Your task to perform on an android device: Search for Italian restaurants on Maps Image 0: 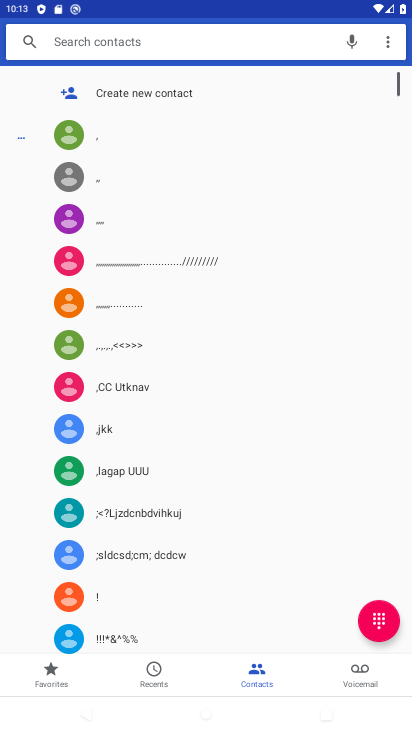
Step 0: press home button
Your task to perform on an android device: Search for Italian restaurants on Maps Image 1: 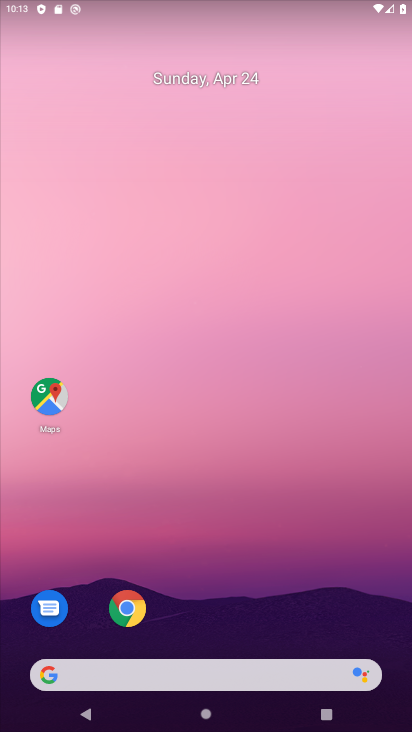
Step 1: drag from (226, 607) to (195, 72)
Your task to perform on an android device: Search for Italian restaurants on Maps Image 2: 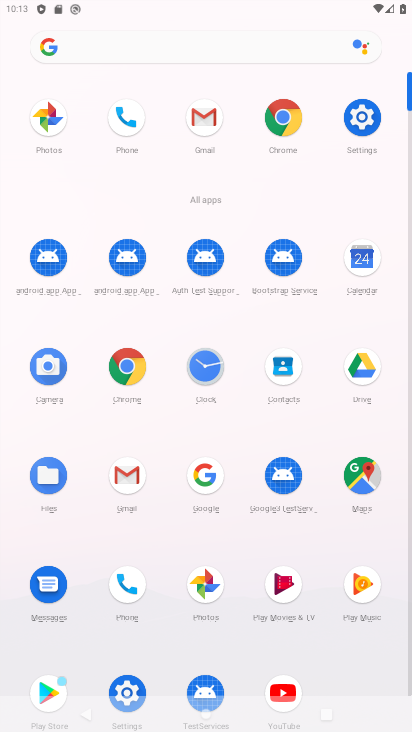
Step 2: click (366, 469)
Your task to perform on an android device: Search for Italian restaurants on Maps Image 3: 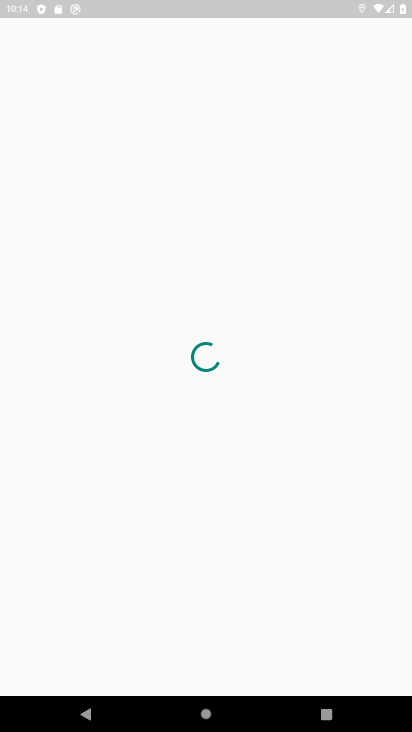
Step 3: click (171, 41)
Your task to perform on an android device: Search for Italian restaurants on Maps Image 4: 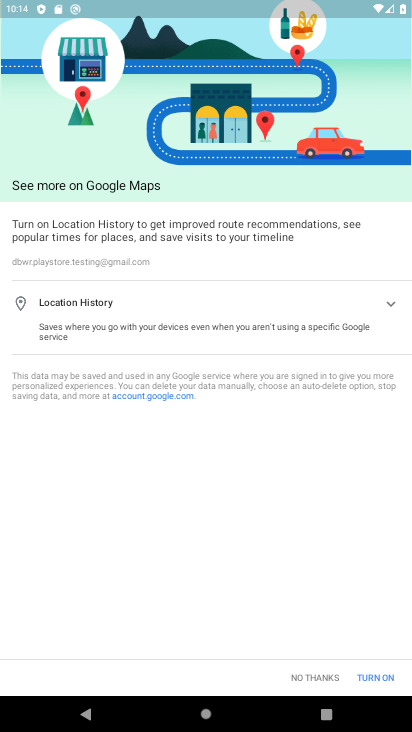
Step 4: click (310, 685)
Your task to perform on an android device: Search for Italian restaurants on Maps Image 5: 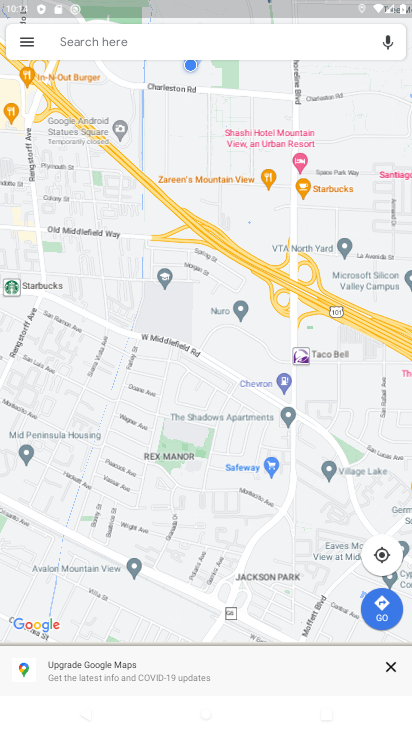
Step 5: click (166, 45)
Your task to perform on an android device: Search for Italian restaurants on Maps Image 6: 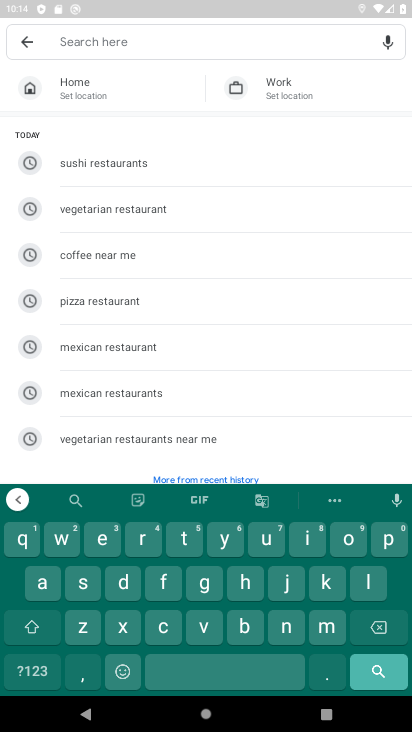
Step 6: click (310, 544)
Your task to perform on an android device: Search for Italian restaurants on Maps Image 7: 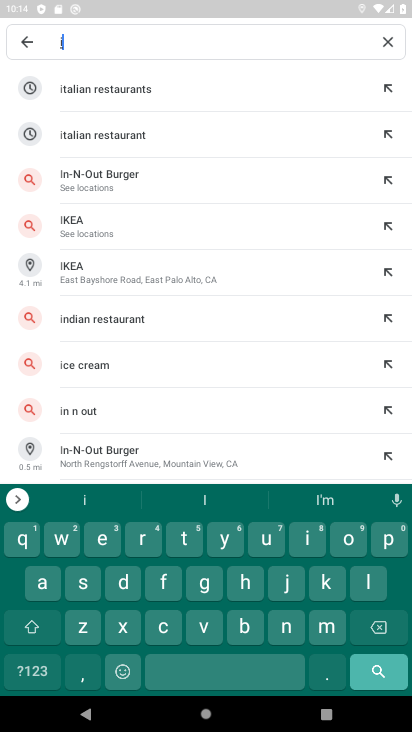
Step 7: click (127, 84)
Your task to perform on an android device: Search for Italian restaurants on Maps Image 8: 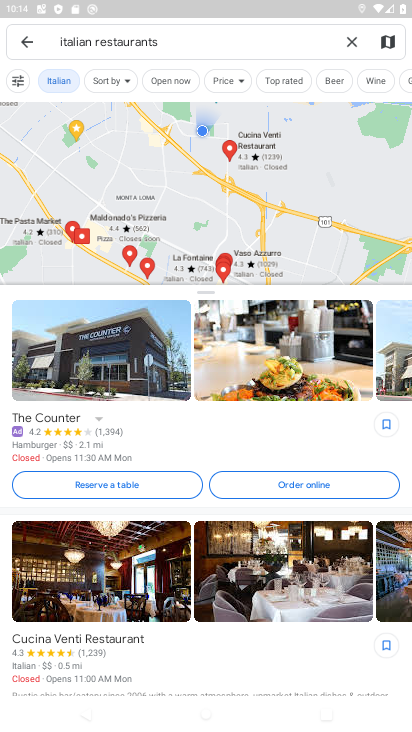
Step 8: click (240, 188)
Your task to perform on an android device: Search for Italian restaurants on Maps Image 9: 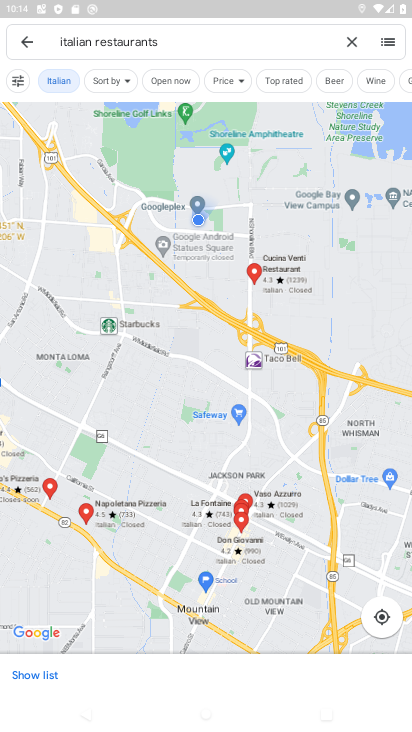
Step 9: task complete